Your task to perform on an android device: toggle location history Image 0: 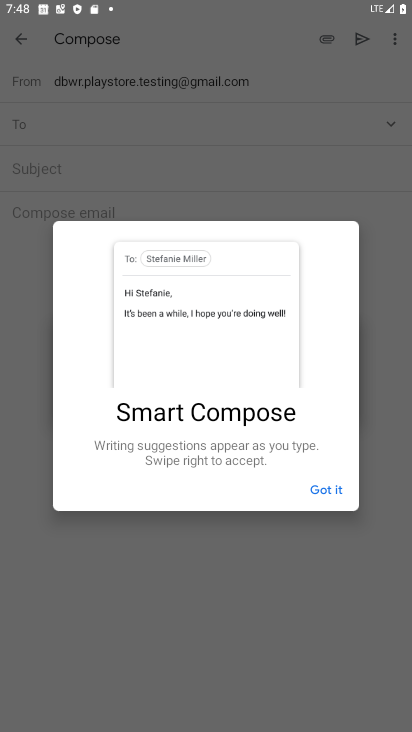
Step 0: press home button
Your task to perform on an android device: toggle location history Image 1: 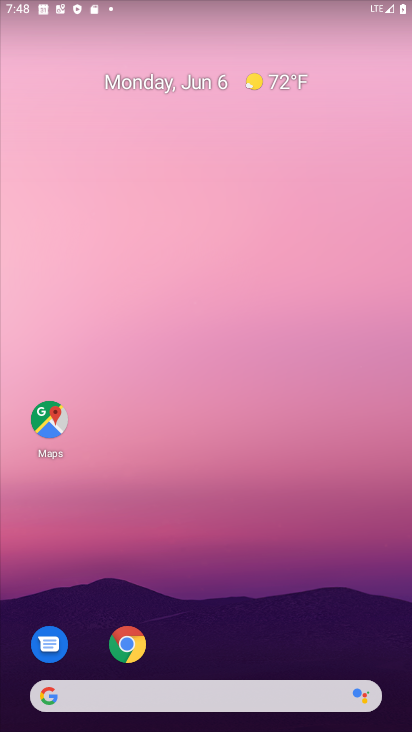
Step 1: drag from (232, 711) to (282, 239)
Your task to perform on an android device: toggle location history Image 2: 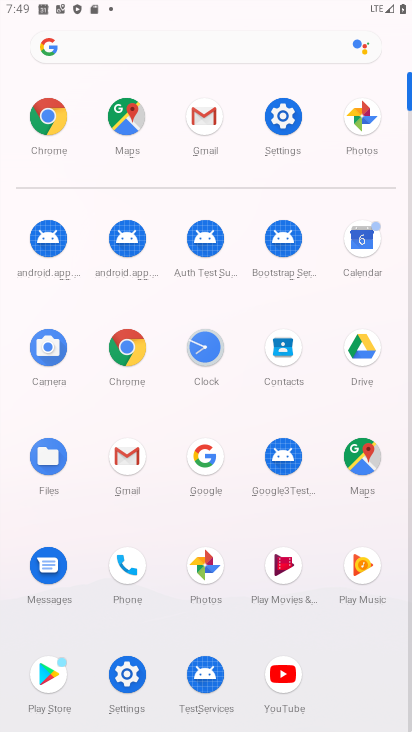
Step 2: click (138, 674)
Your task to perform on an android device: toggle location history Image 3: 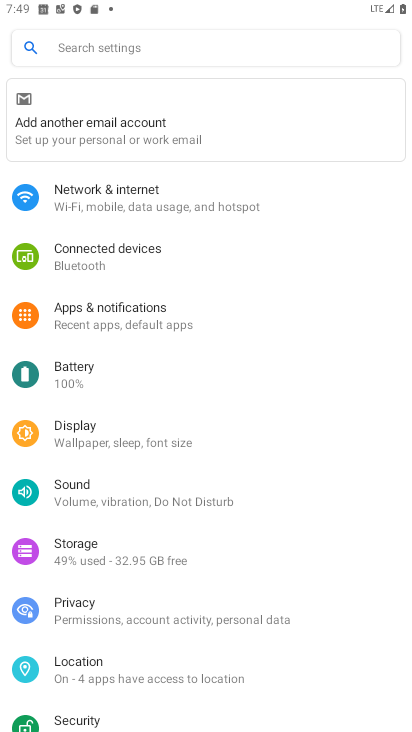
Step 3: click (149, 49)
Your task to perform on an android device: toggle location history Image 4: 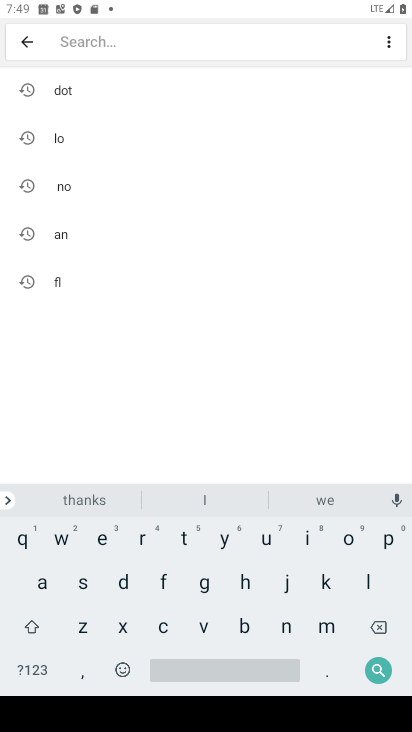
Step 4: click (71, 144)
Your task to perform on an android device: toggle location history Image 5: 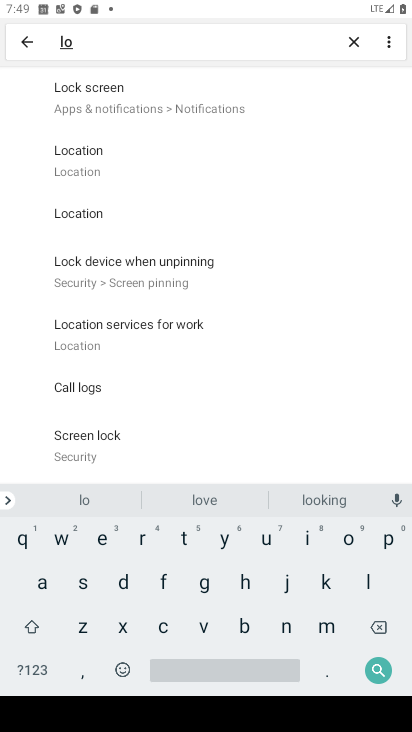
Step 5: click (139, 153)
Your task to perform on an android device: toggle location history Image 6: 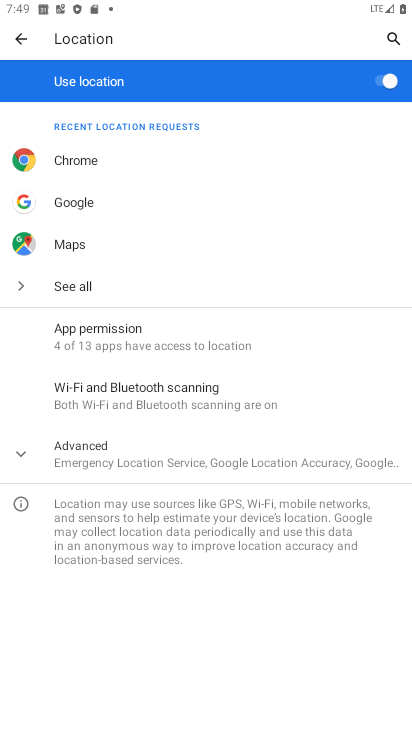
Step 6: click (59, 446)
Your task to perform on an android device: toggle location history Image 7: 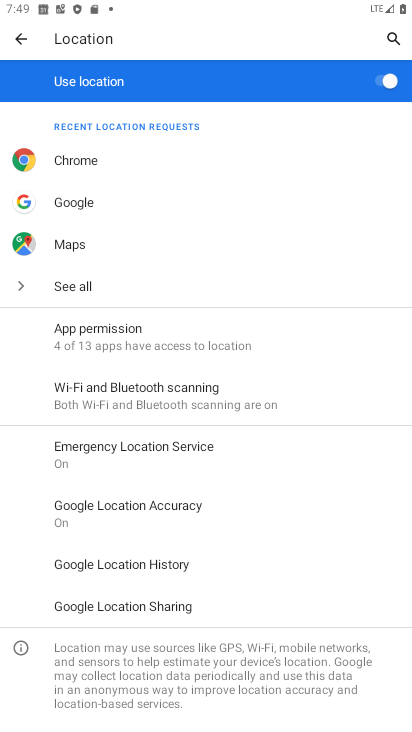
Step 7: click (142, 549)
Your task to perform on an android device: toggle location history Image 8: 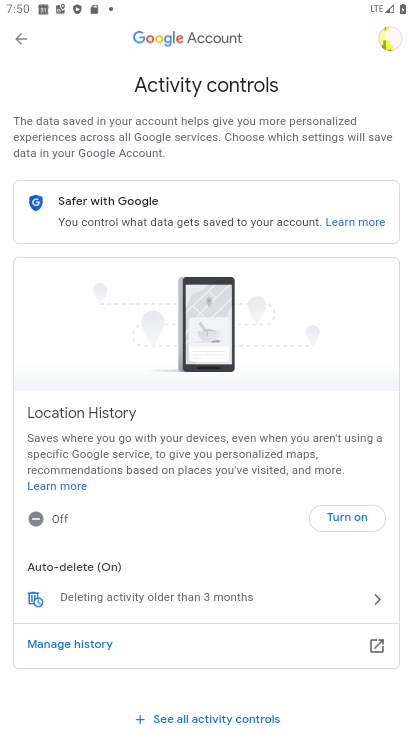
Step 8: task complete